Your task to perform on an android device: change the clock style Image 0: 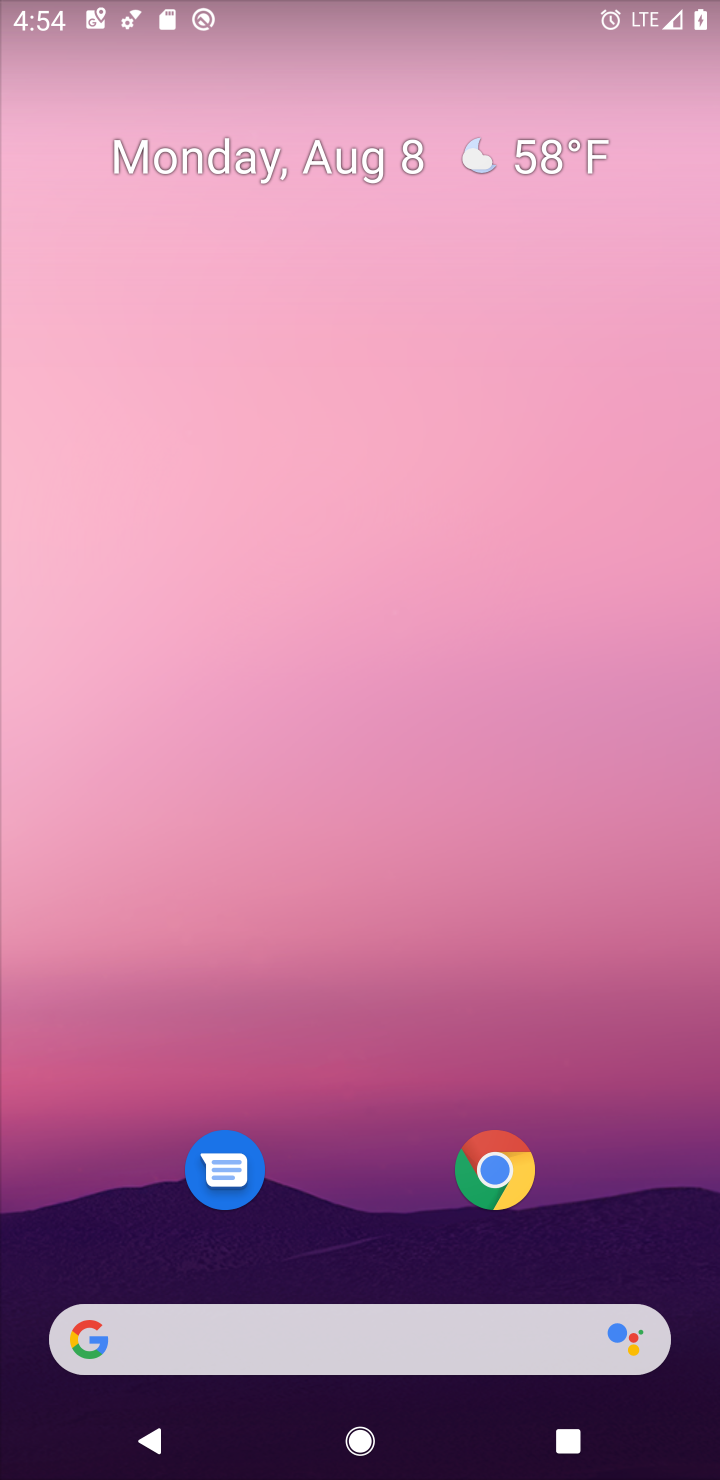
Step 0: drag from (341, 1208) to (307, 236)
Your task to perform on an android device: change the clock style Image 1: 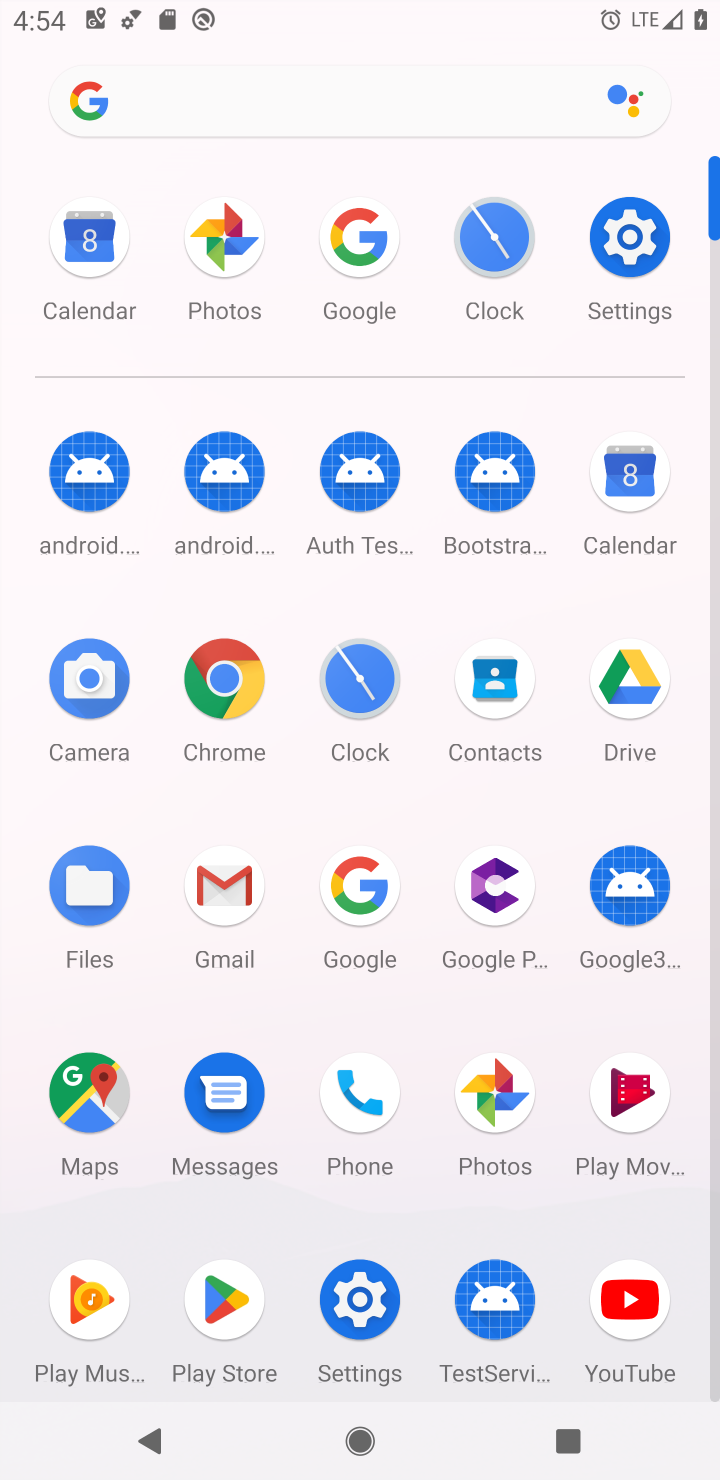
Step 1: click (489, 254)
Your task to perform on an android device: change the clock style Image 2: 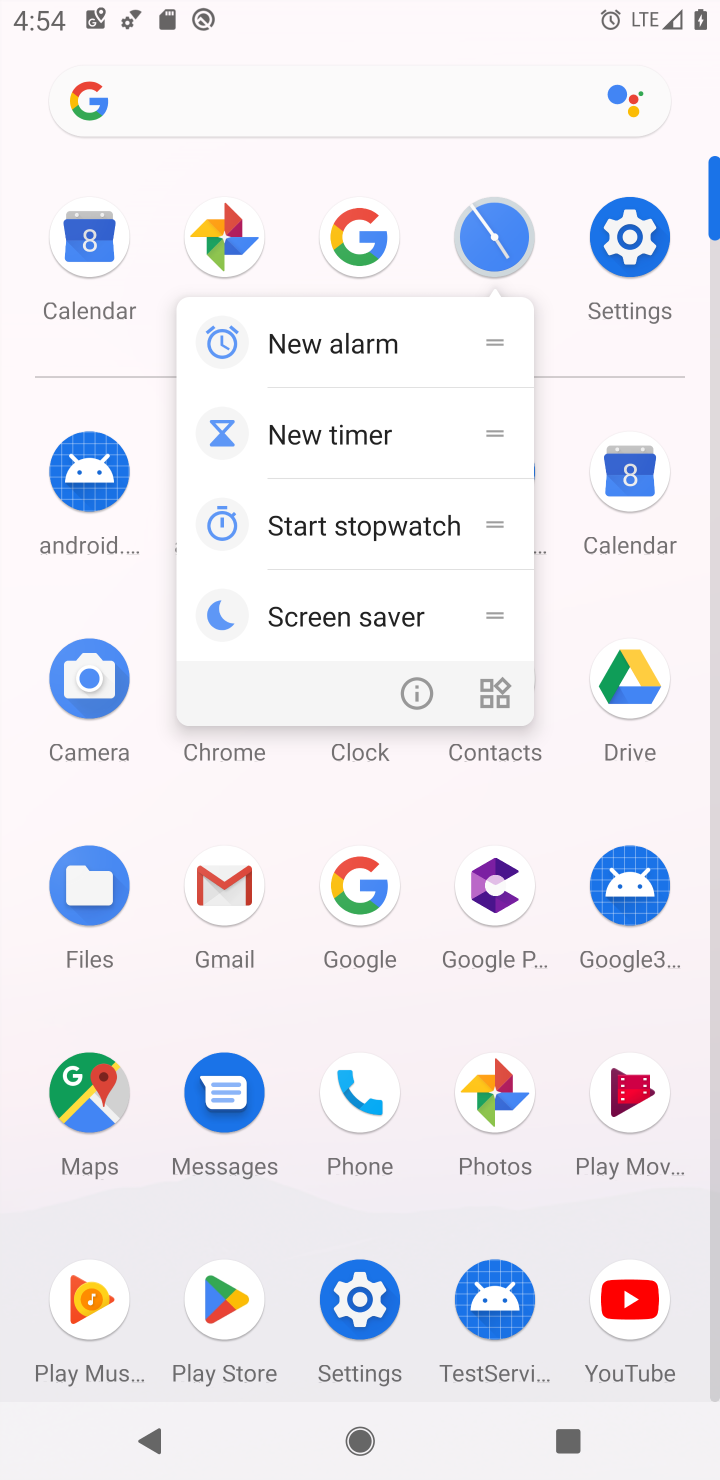
Step 2: click (501, 230)
Your task to perform on an android device: change the clock style Image 3: 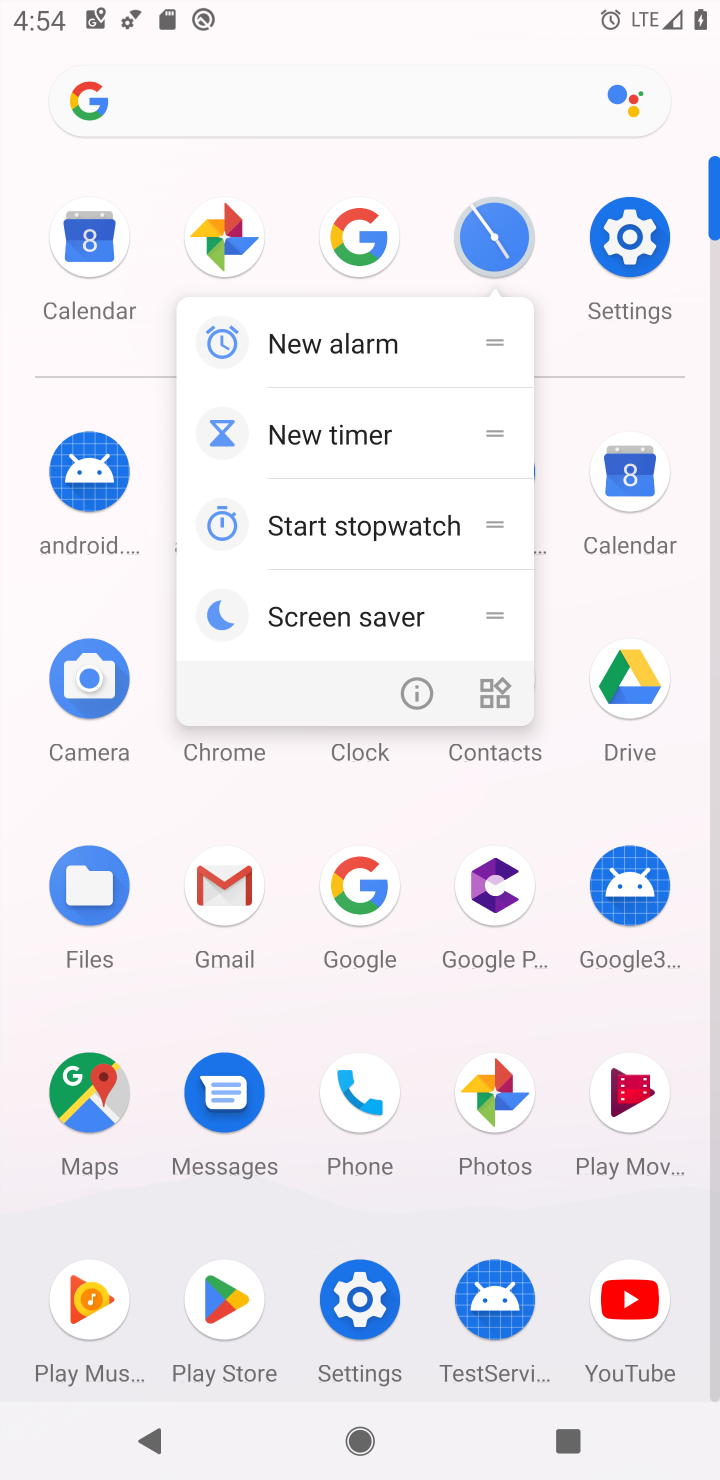
Step 3: click (501, 230)
Your task to perform on an android device: change the clock style Image 4: 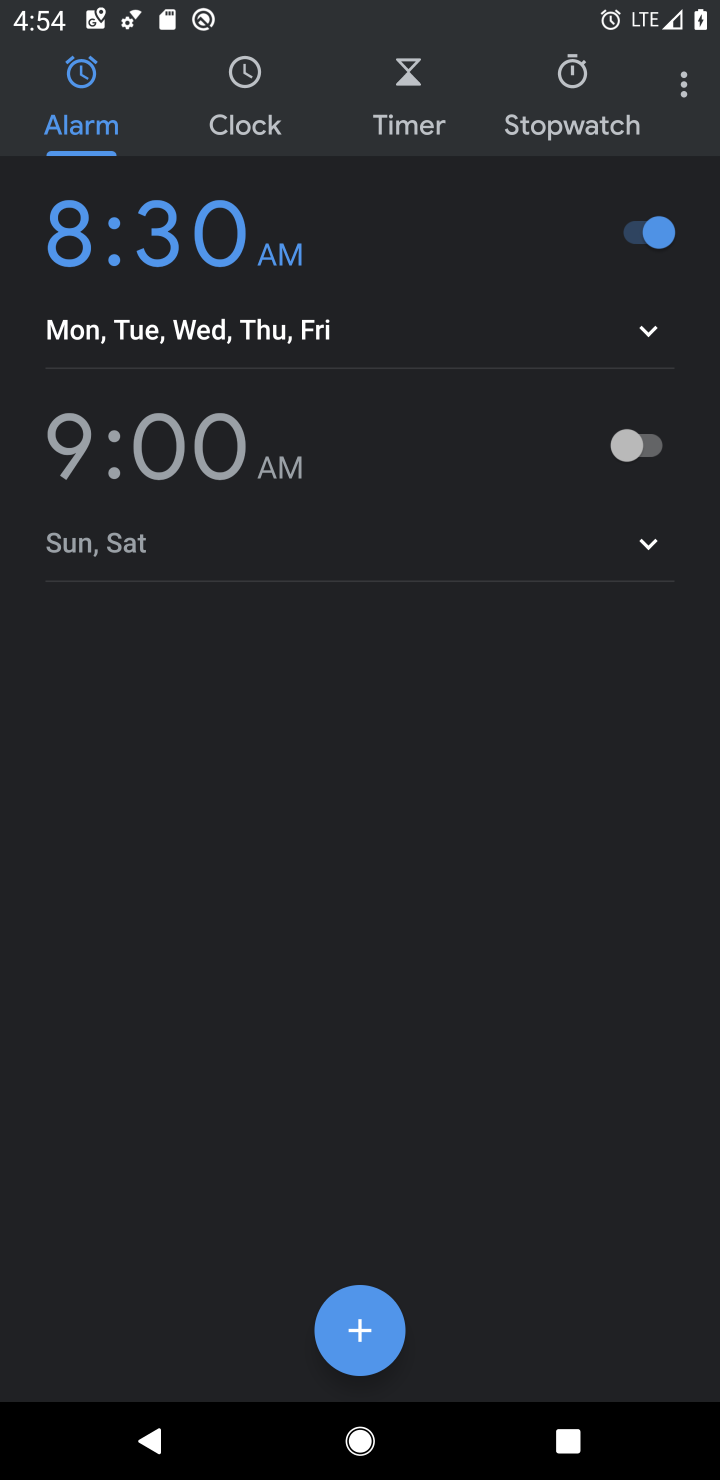
Step 4: click (694, 94)
Your task to perform on an android device: change the clock style Image 5: 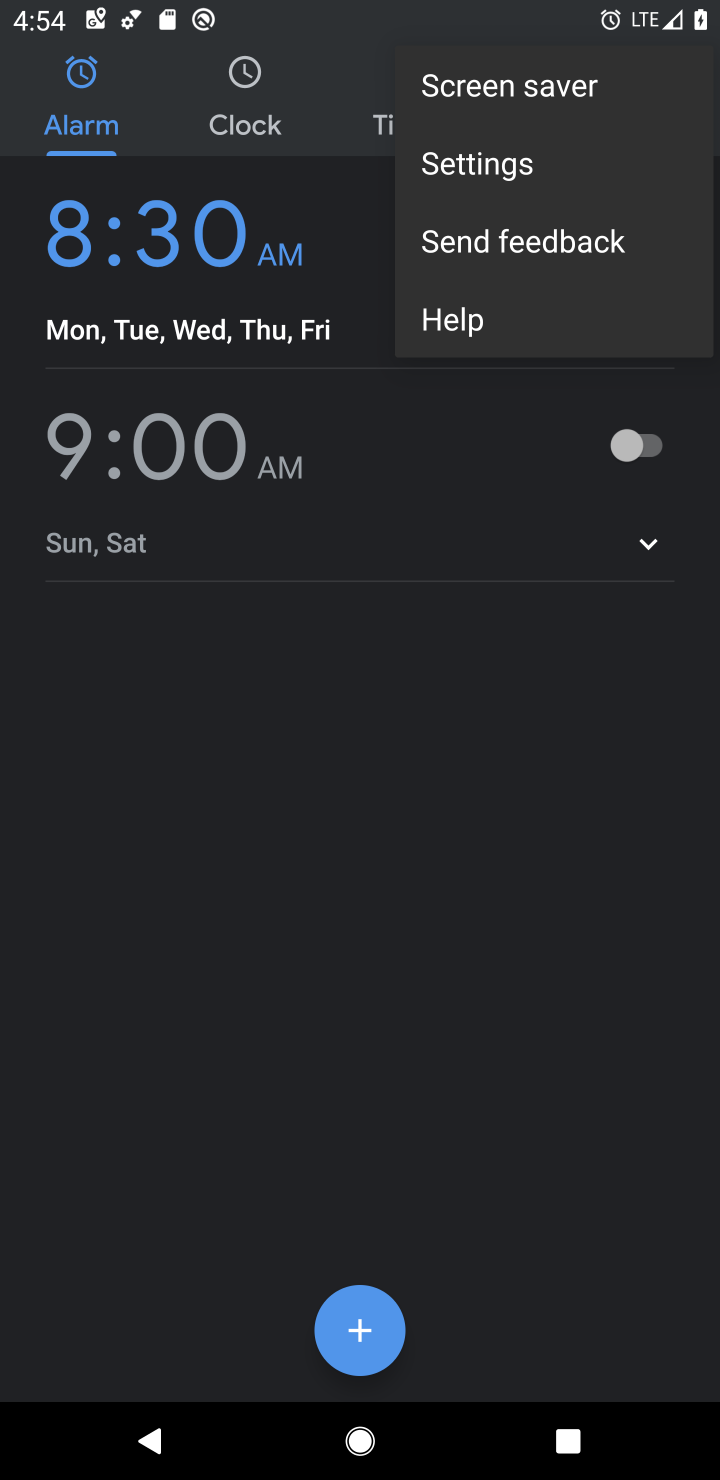
Step 5: click (562, 165)
Your task to perform on an android device: change the clock style Image 6: 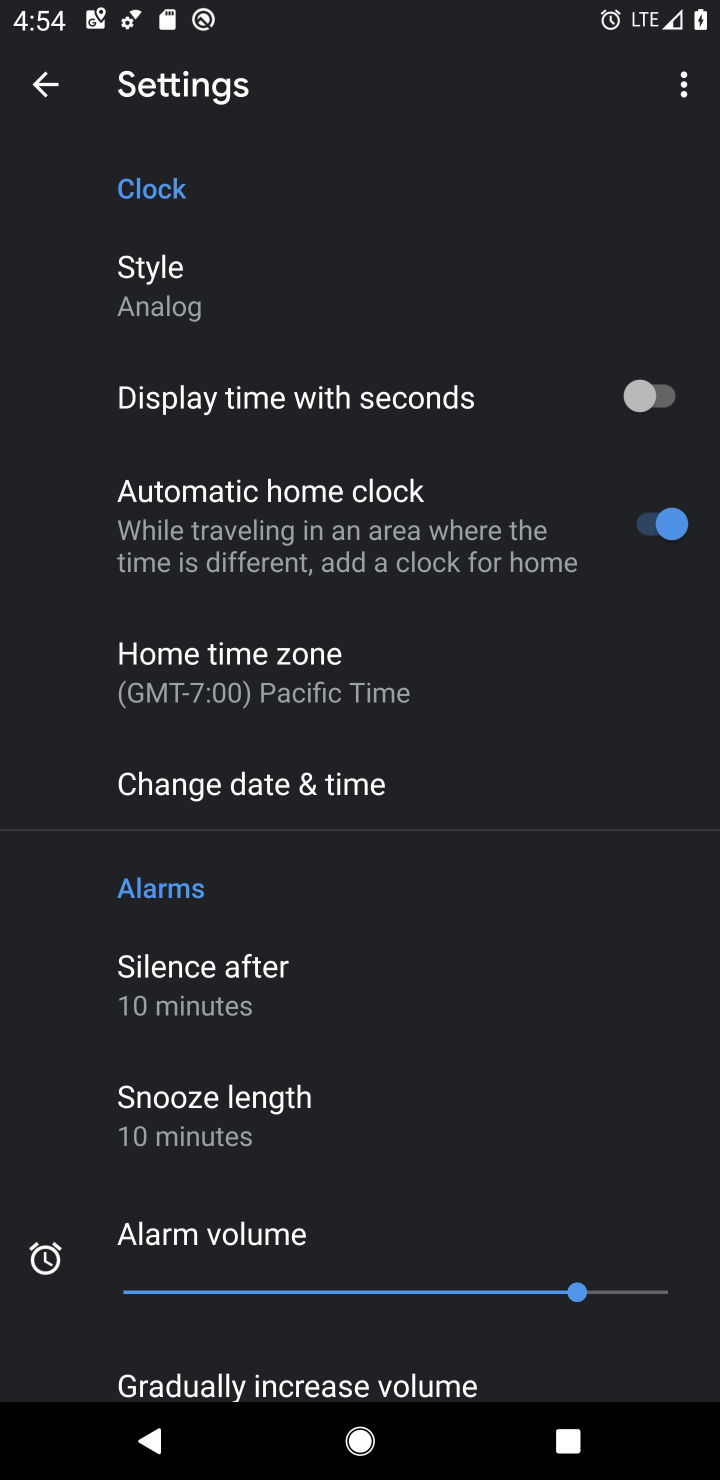
Step 6: click (256, 275)
Your task to perform on an android device: change the clock style Image 7: 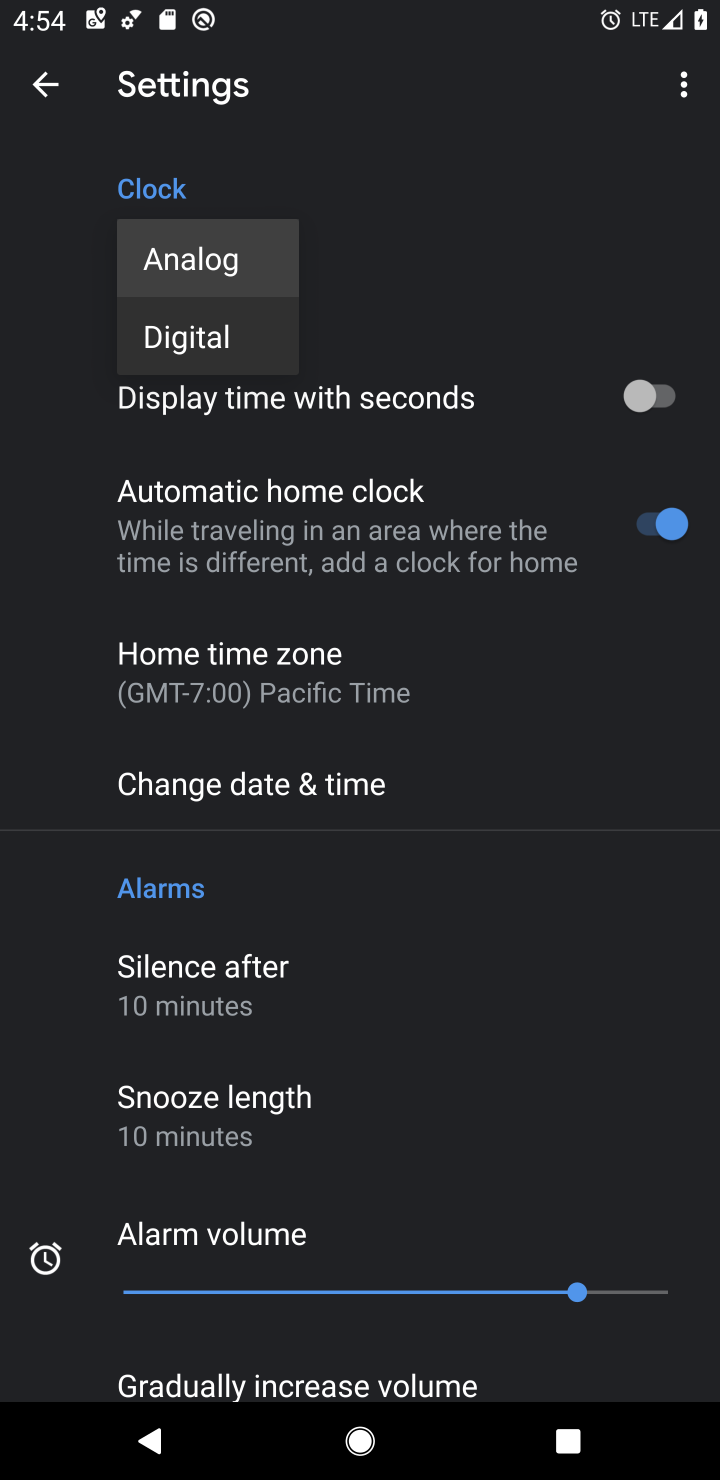
Step 7: click (220, 327)
Your task to perform on an android device: change the clock style Image 8: 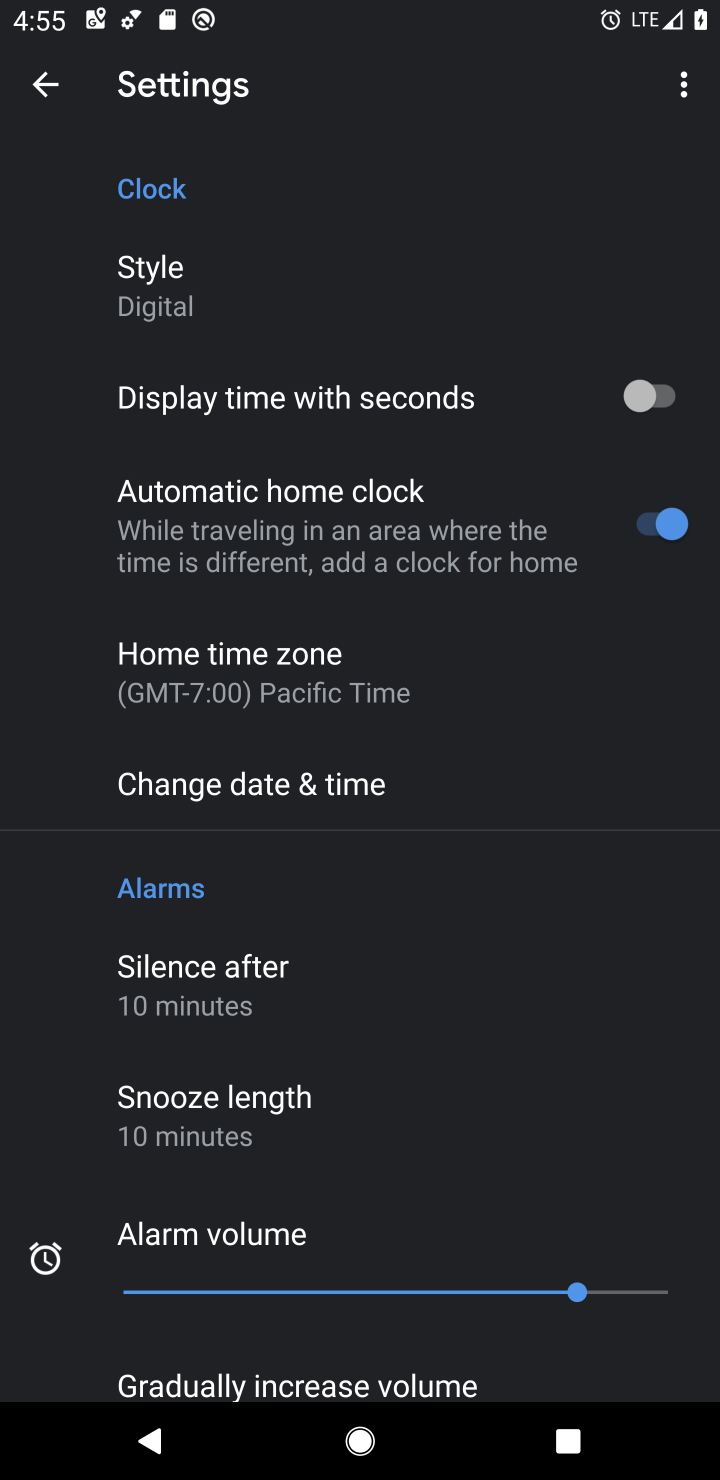
Step 8: task complete